Your task to perform on an android device: Go to privacy settings Image 0: 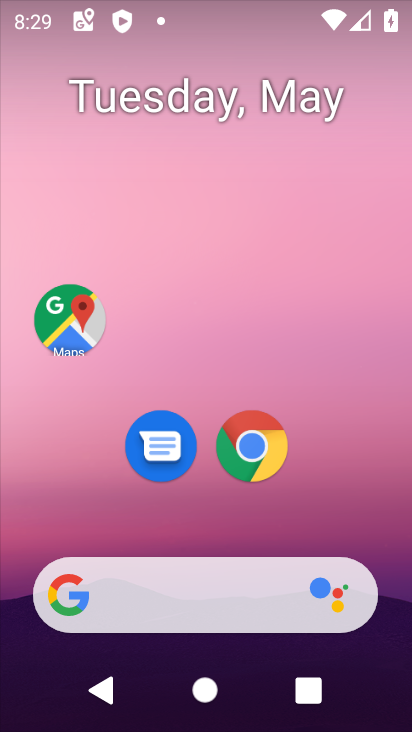
Step 0: drag from (377, 407) to (292, 12)
Your task to perform on an android device: Go to privacy settings Image 1: 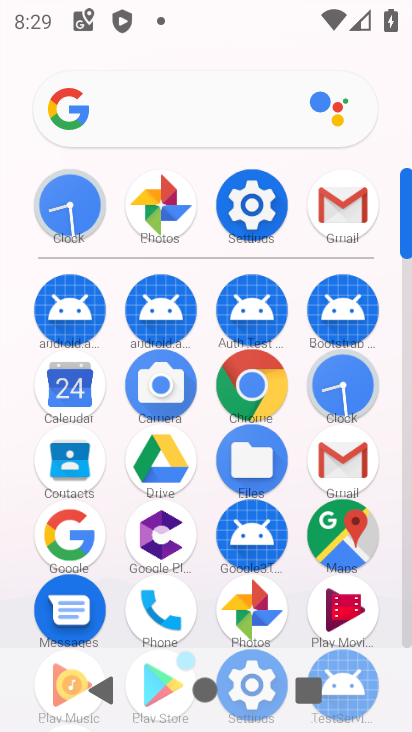
Step 1: click (252, 223)
Your task to perform on an android device: Go to privacy settings Image 2: 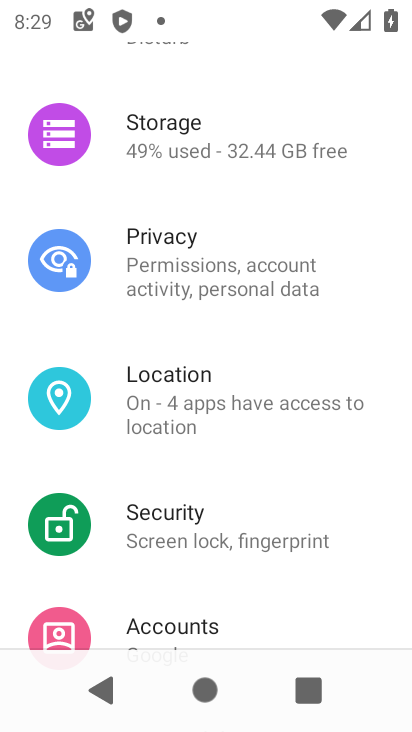
Step 2: click (161, 280)
Your task to perform on an android device: Go to privacy settings Image 3: 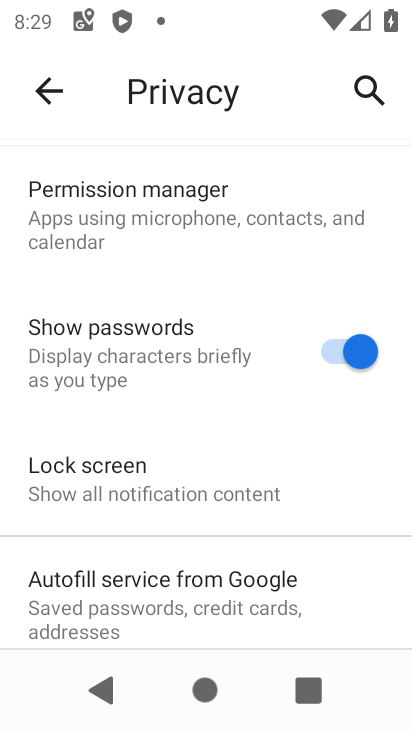
Step 3: task complete